Your task to perform on an android device: Go to Android settings Image 0: 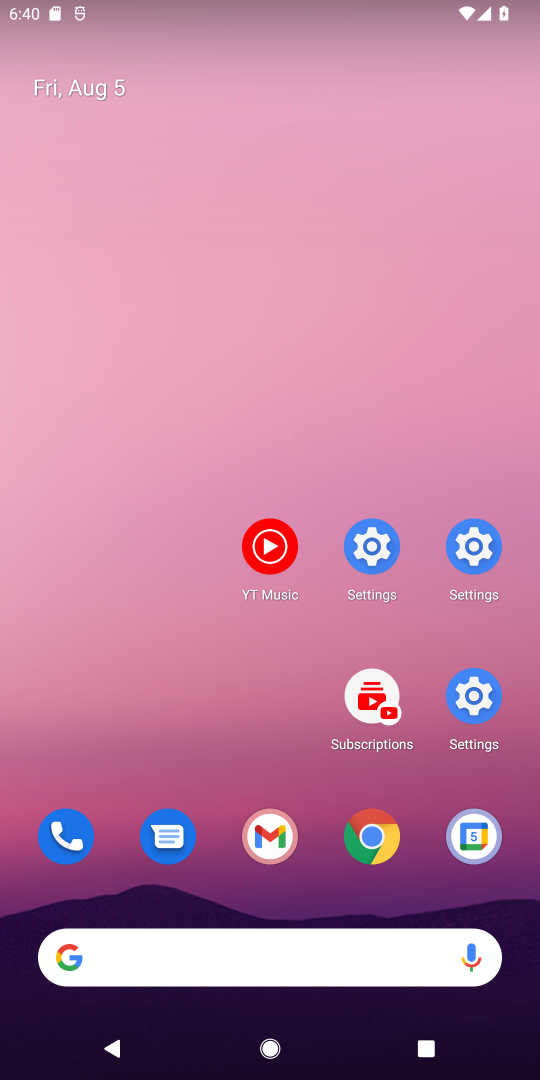
Step 0: drag from (425, 736) to (320, 355)
Your task to perform on an android device: Go to Android settings Image 1: 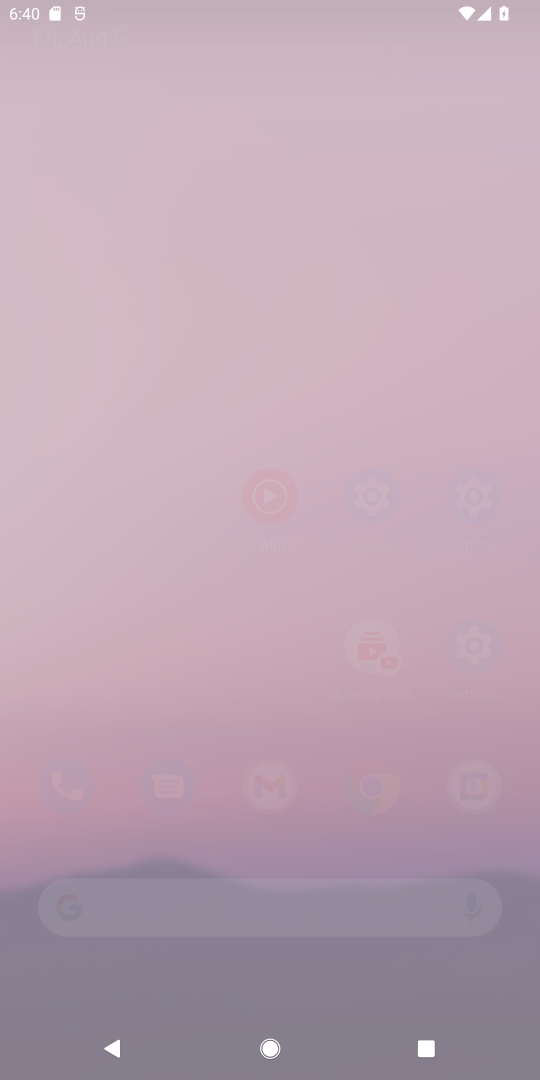
Step 1: drag from (376, 595) to (345, 383)
Your task to perform on an android device: Go to Android settings Image 2: 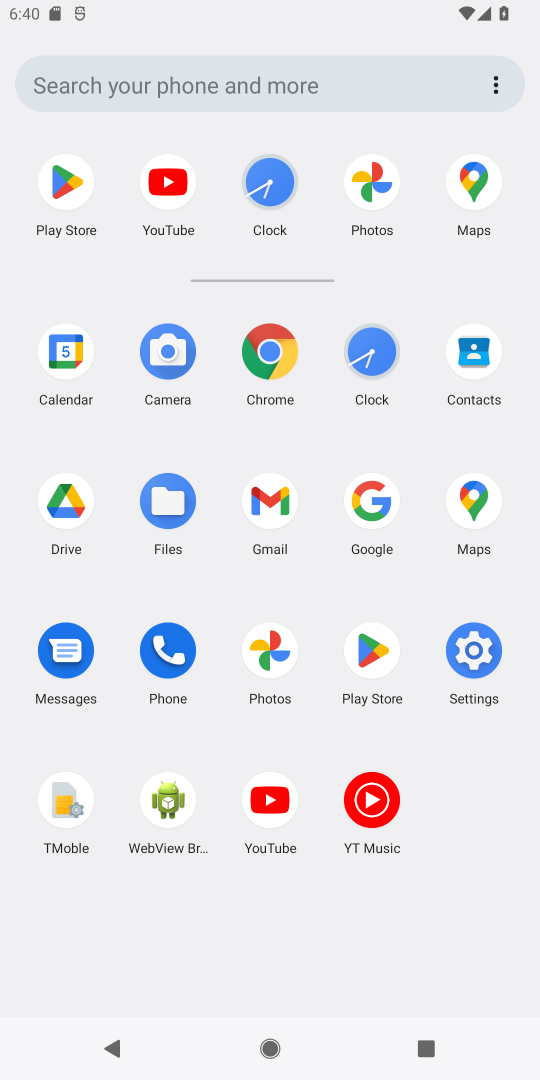
Step 2: click (467, 652)
Your task to perform on an android device: Go to Android settings Image 3: 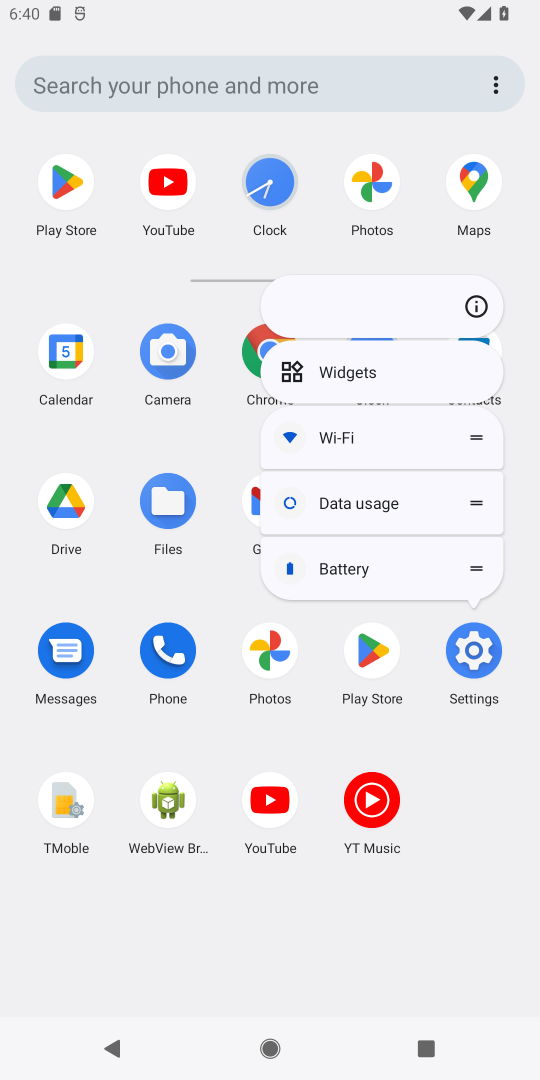
Step 3: click (467, 652)
Your task to perform on an android device: Go to Android settings Image 4: 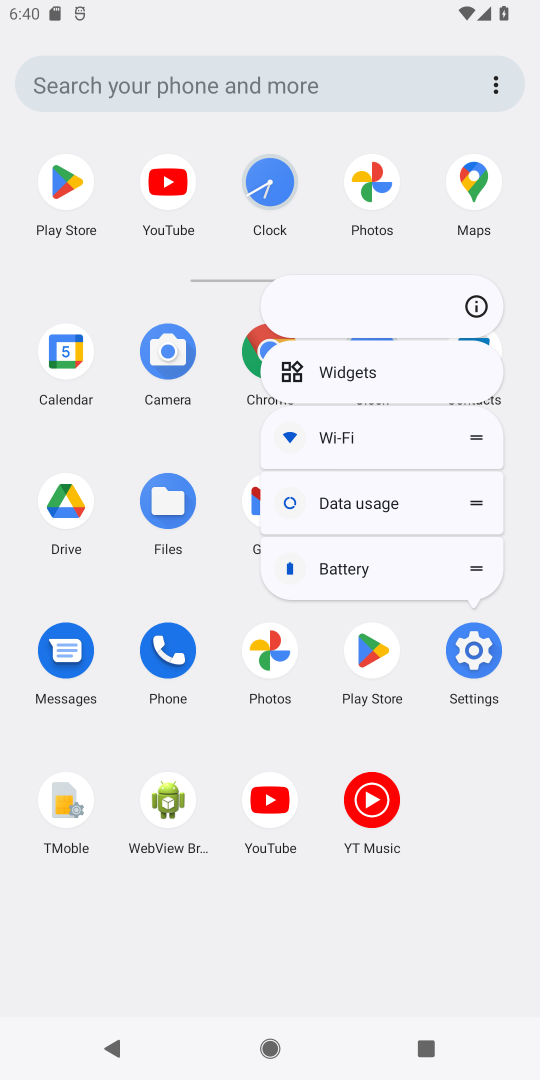
Step 4: click (475, 652)
Your task to perform on an android device: Go to Android settings Image 5: 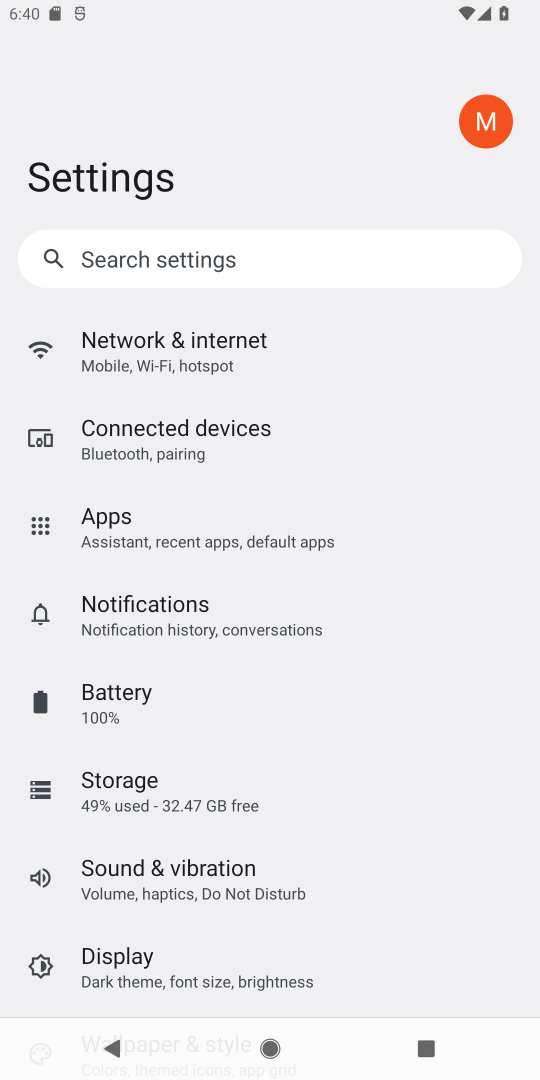
Step 5: drag from (156, 696) to (45, 151)
Your task to perform on an android device: Go to Android settings Image 6: 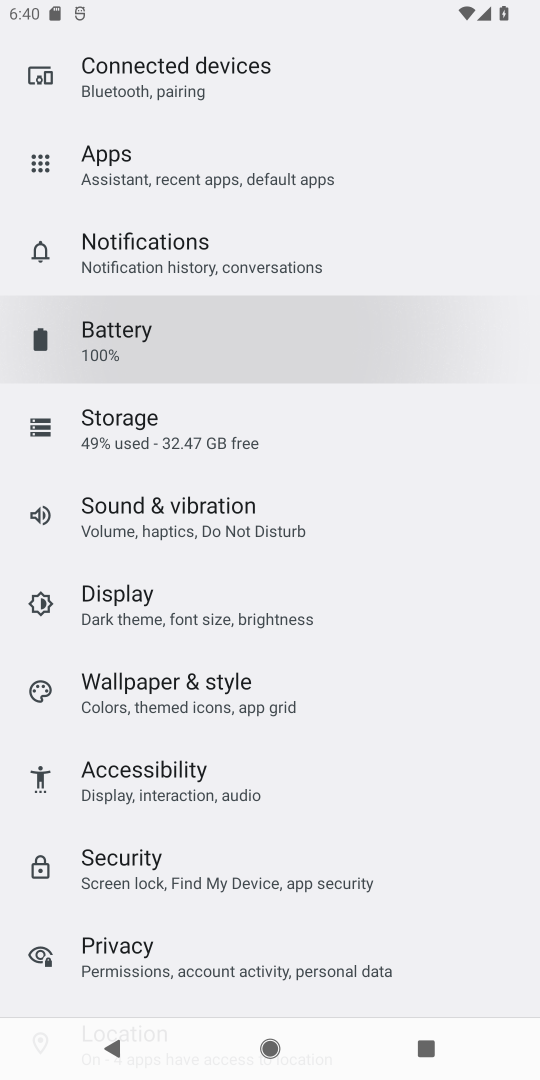
Step 6: drag from (116, 616) to (88, 381)
Your task to perform on an android device: Go to Android settings Image 7: 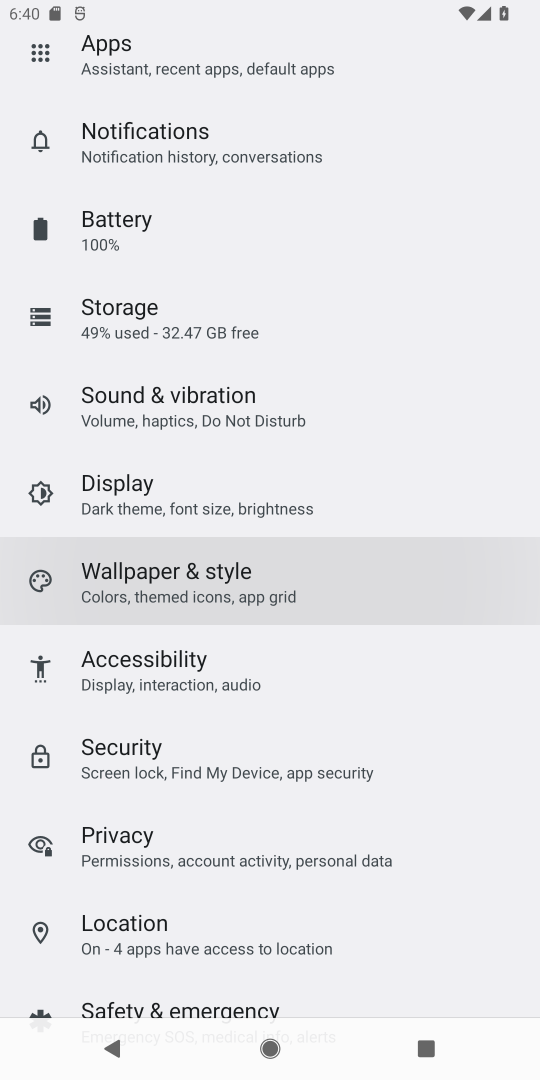
Step 7: drag from (173, 717) to (173, 326)
Your task to perform on an android device: Go to Android settings Image 8: 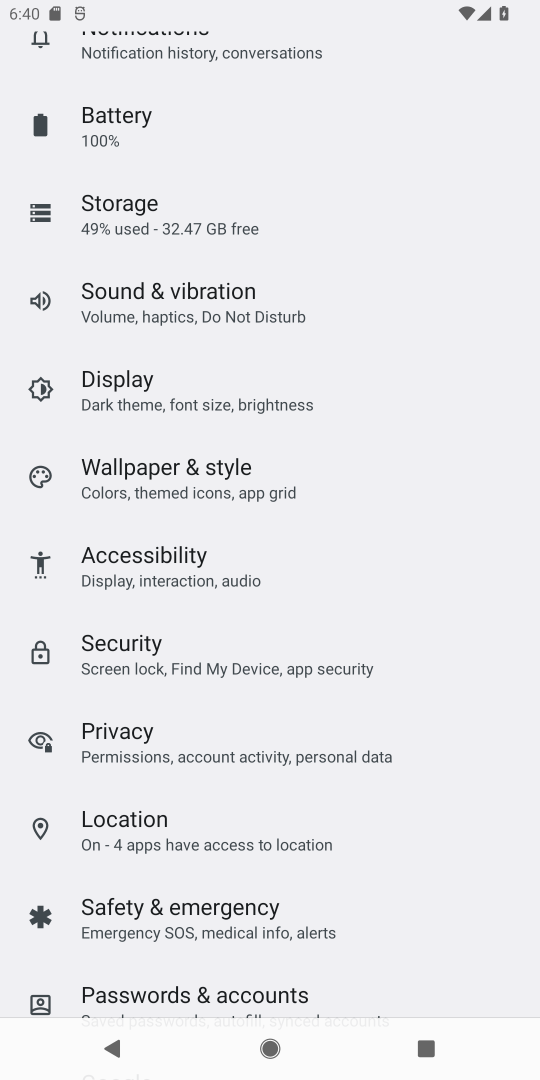
Step 8: drag from (207, 675) to (207, 288)
Your task to perform on an android device: Go to Android settings Image 9: 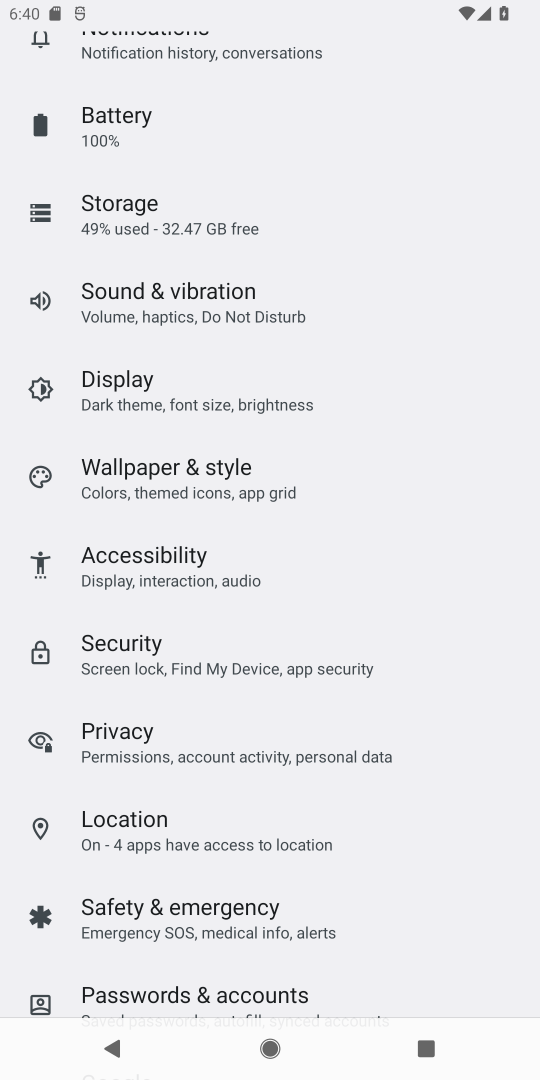
Step 9: drag from (263, 670) to (234, 146)
Your task to perform on an android device: Go to Android settings Image 10: 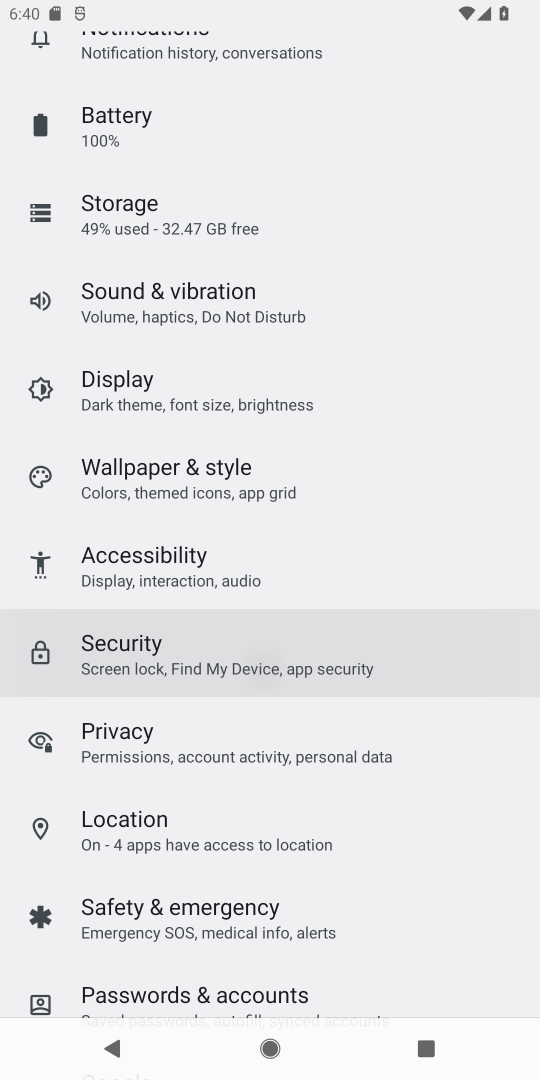
Step 10: drag from (191, 219) to (182, 99)
Your task to perform on an android device: Go to Android settings Image 11: 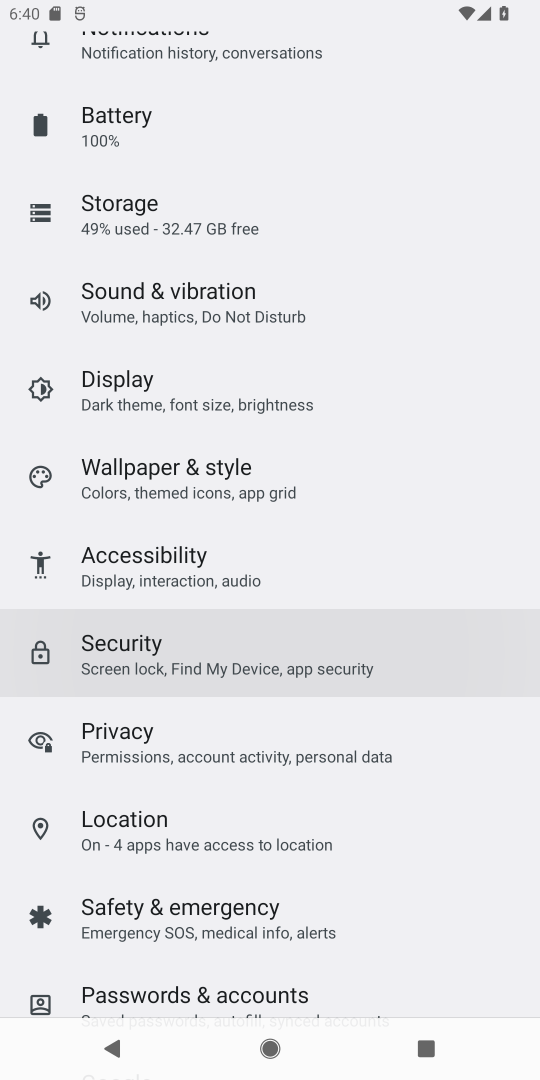
Step 11: drag from (216, 662) to (139, 107)
Your task to perform on an android device: Go to Android settings Image 12: 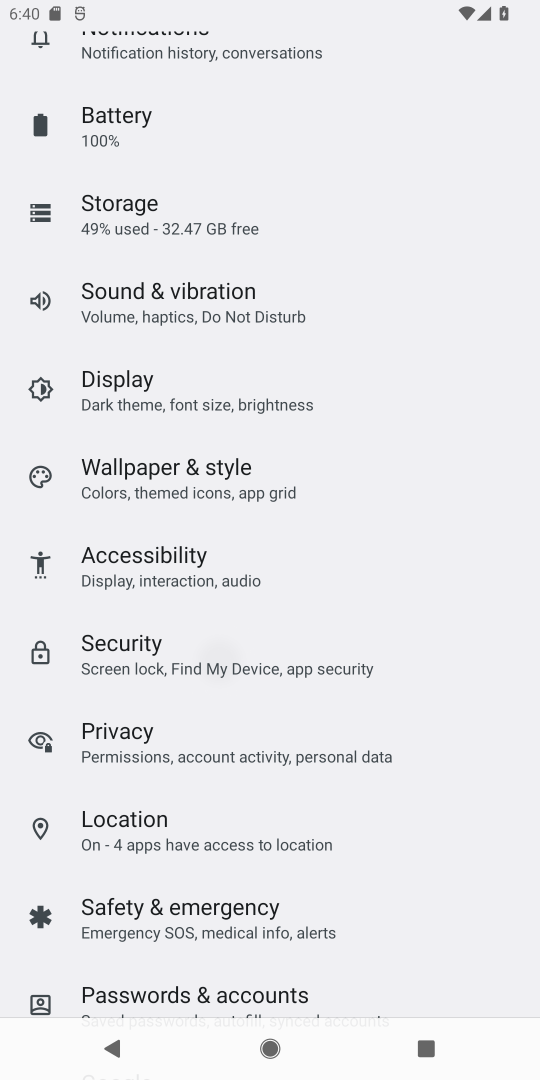
Step 12: drag from (138, 759) to (144, 221)
Your task to perform on an android device: Go to Android settings Image 13: 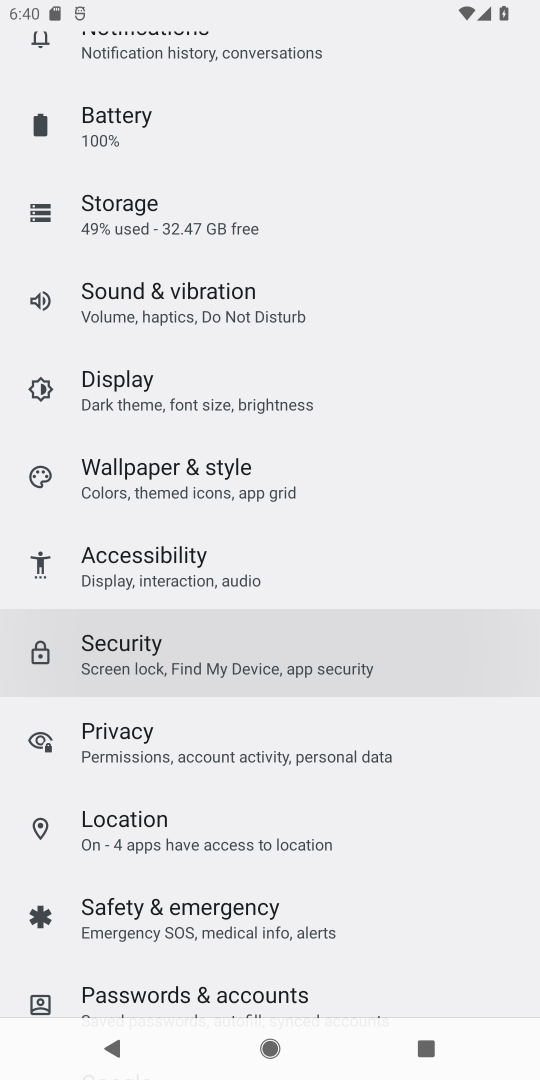
Step 13: drag from (194, 820) to (196, 223)
Your task to perform on an android device: Go to Android settings Image 14: 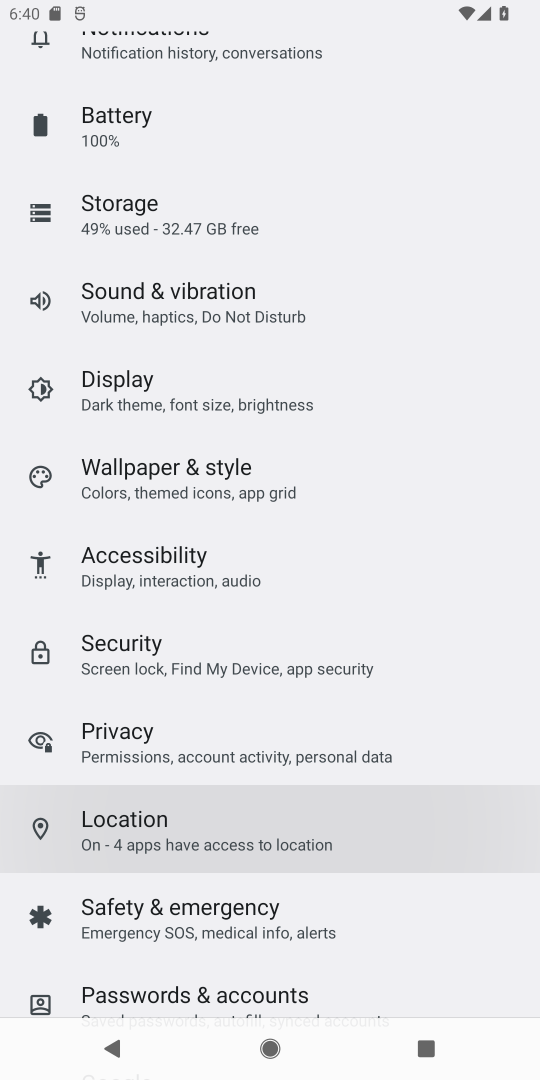
Step 14: drag from (229, 756) to (170, 205)
Your task to perform on an android device: Go to Android settings Image 15: 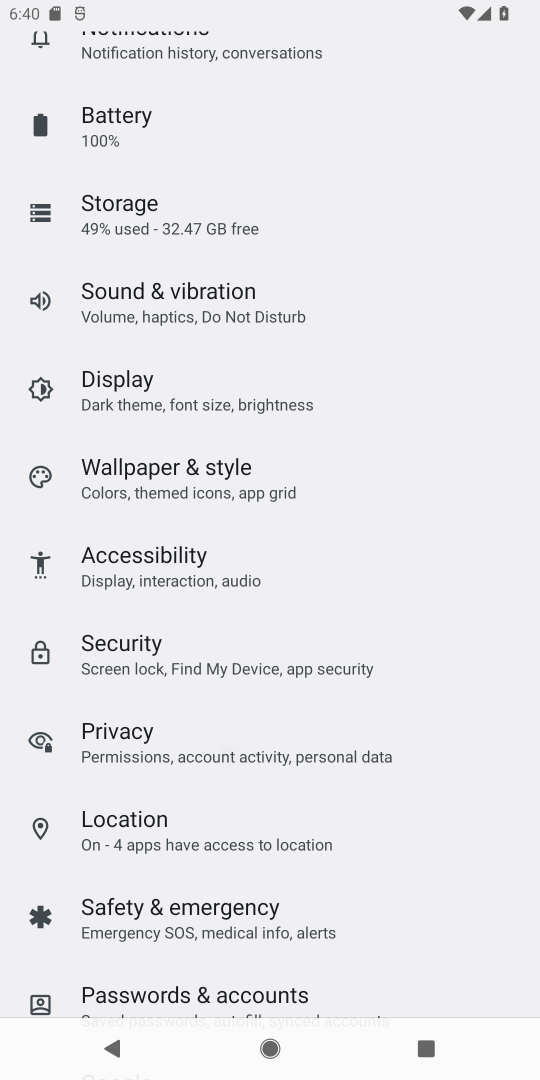
Step 15: drag from (168, 835) to (136, 173)
Your task to perform on an android device: Go to Android settings Image 16: 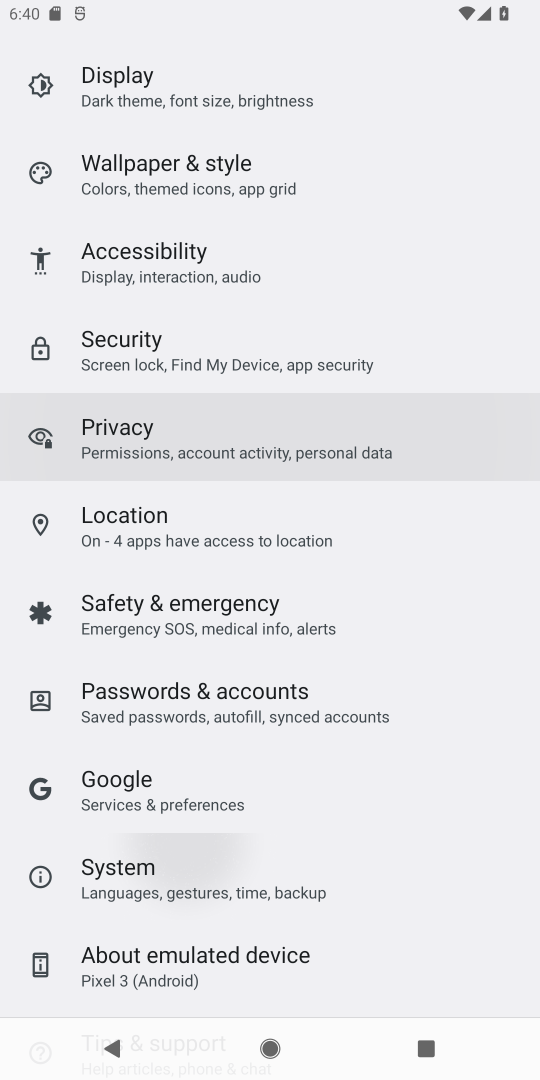
Step 16: drag from (175, 442) to (136, 158)
Your task to perform on an android device: Go to Android settings Image 17: 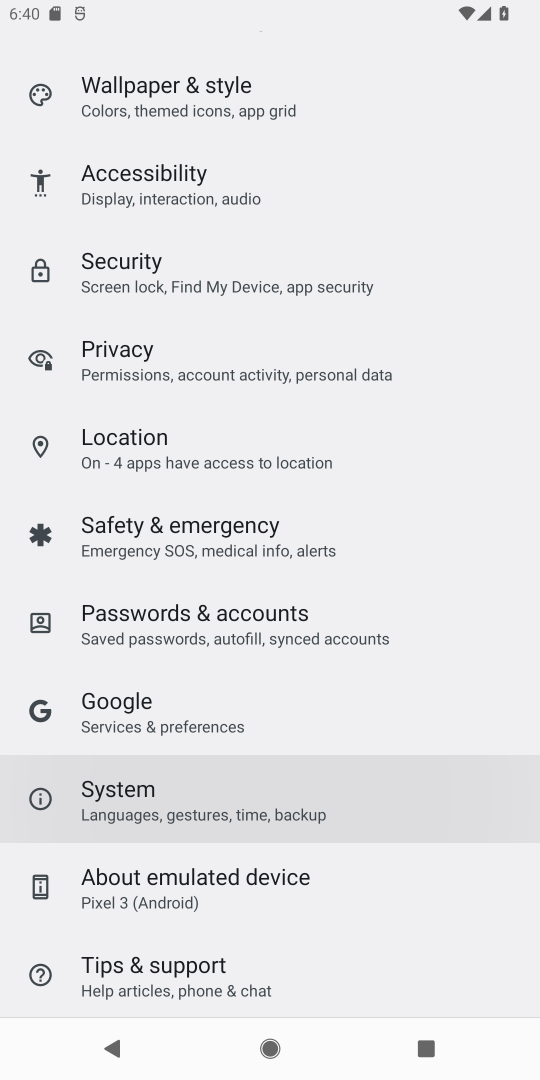
Step 17: drag from (234, 643) to (162, 8)
Your task to perform on an android device: Go to Android settings Image 18: 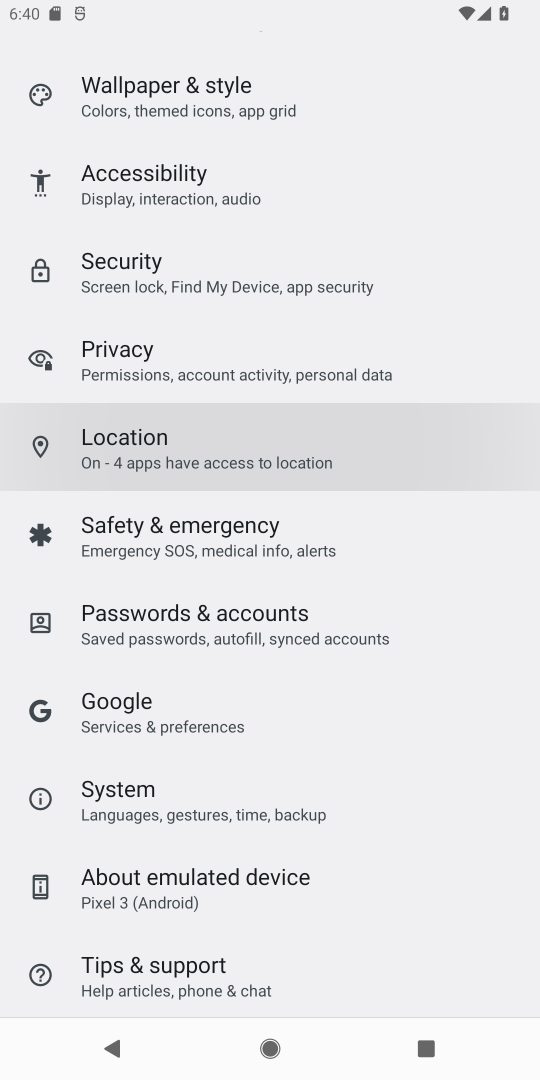
Step 18: drag from (206, 771) to (127, 181)
Your task to perform on an android device: Go to Android settings Image 19: 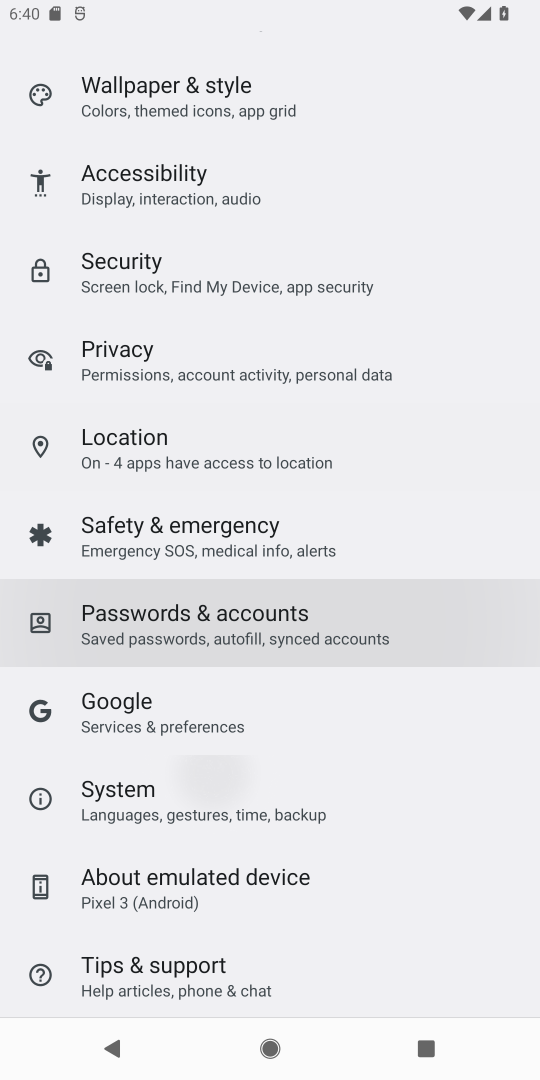
Step 19: drag from (179, 542) to (179, 190)
Your task to perform on an android device: Go to Android settings Image 20: 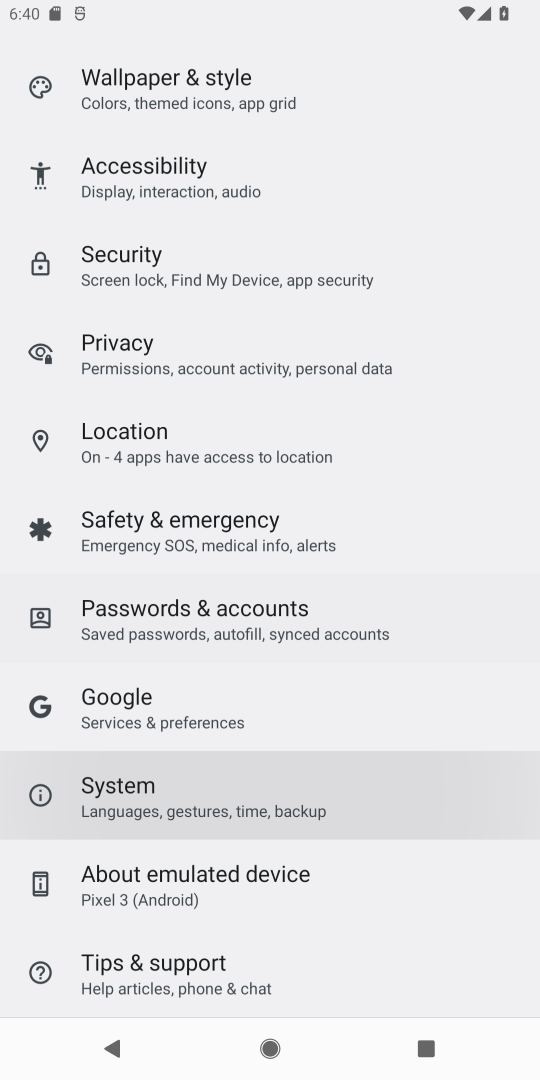
Step 20: click (218, 360)
Your task to perform on an android device: Go to Android settings Image 21: 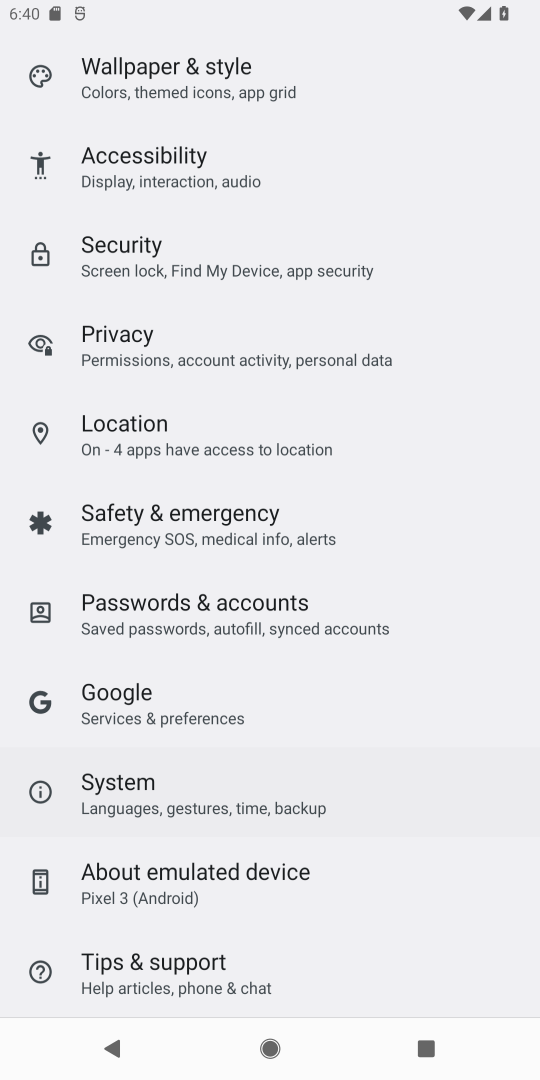
Step 21: task complete